Your task to perform on an android device: check google app version Image 0: 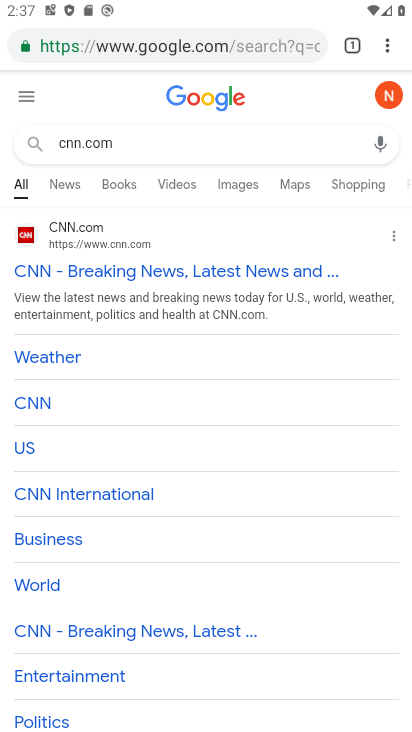
Step 0: press home button
Your task to perform on an android device: check google app version Image 1: 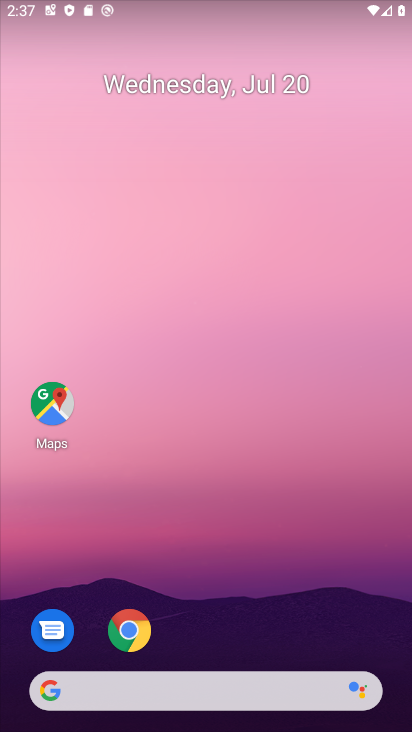
Step 1: drag from (330, 602) to (362, 173)
Your task to perform on an android device: check google app version Image 2: 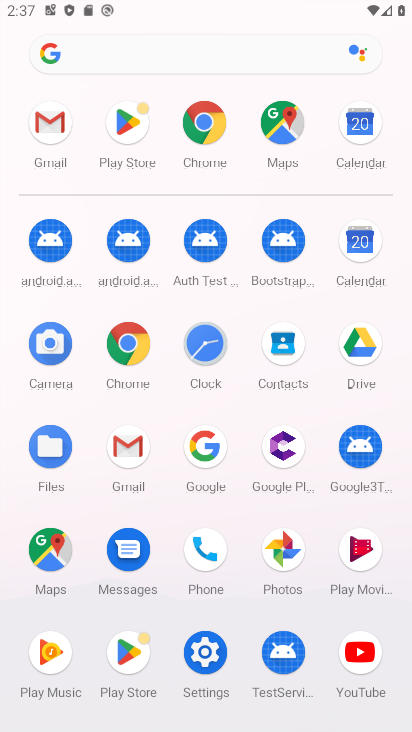
Step 2: click (197, 458)
Your task to perform on an android device: check google app version Image 3: 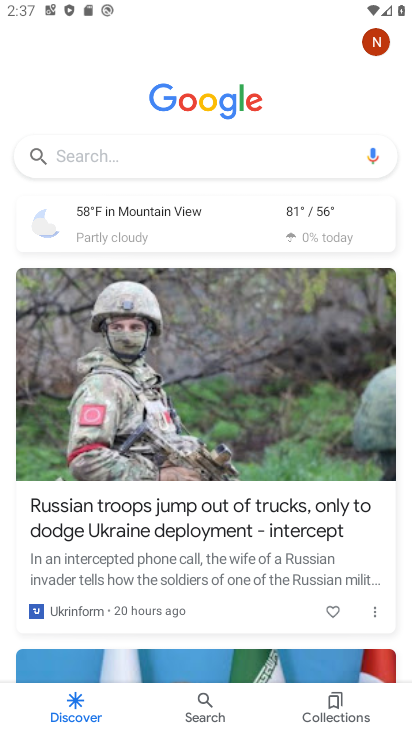
Step 3: click (370, 44)
Your task to perform on an android device: check google app version Image 4: 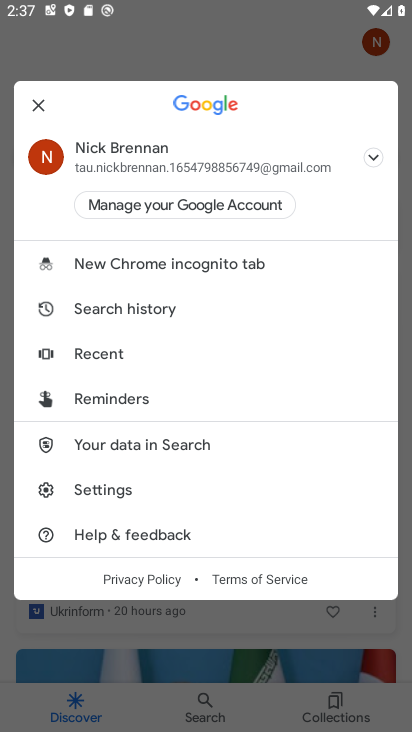
Step 4: click (179, 495)
Your task to perform on an android device: check google app version Image 5: 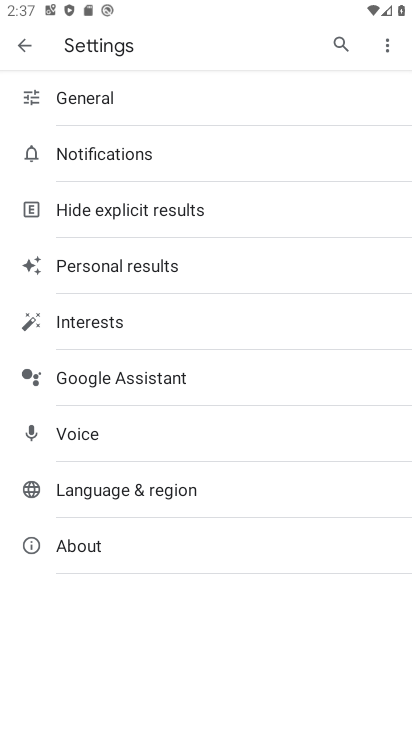
Step 5: click (189, 541)
Your task to perform on an android device: check google app version Image 6: 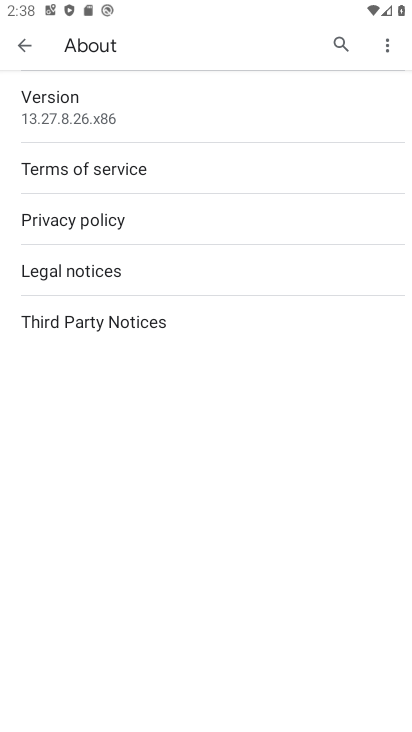
Step 6: task complete